Your task to perform on an android device: Open accessibility settings Image 0: 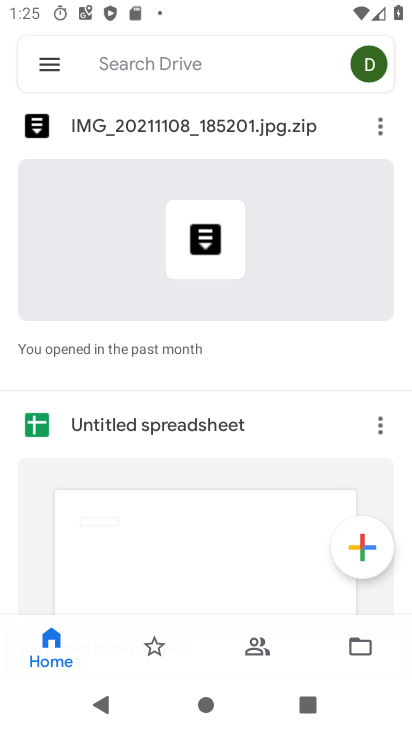
Step 0: press home button
Your task to perform on an android device: Open accessibility settings Image 1: 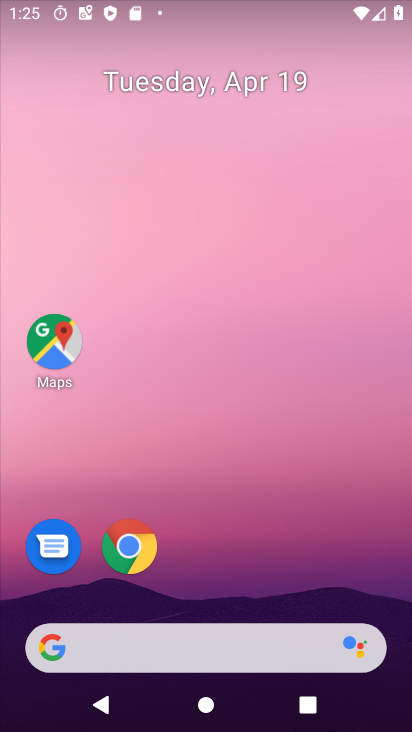
Step 1: drag from (251, 593) to (305, 139)
Your task to perform on an android device: Open accessibility settings Image 2: 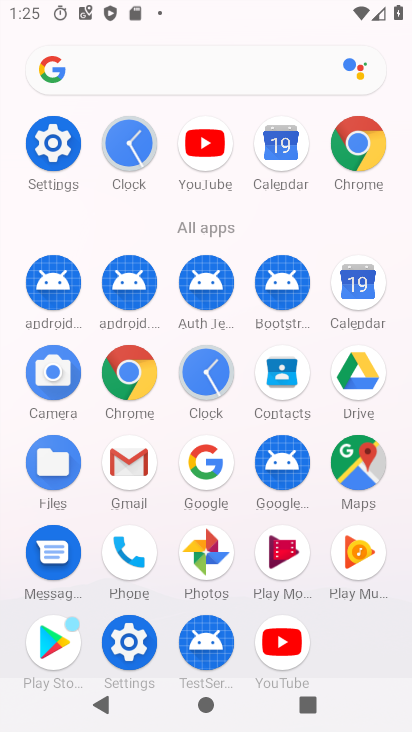
Step 2: click (44, 146)
Your task to perform on an android device: Open accessibility settings Image 3: 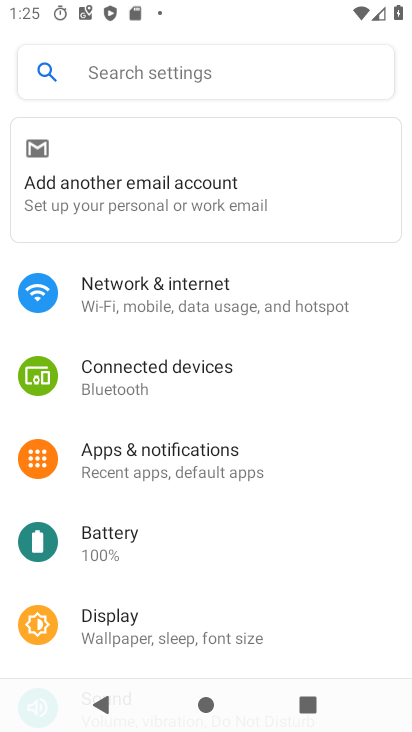
Step 3: drag from (155, 645) to (264, 88)
Your task to perform on an android device: Open accessibility settings Image 4: 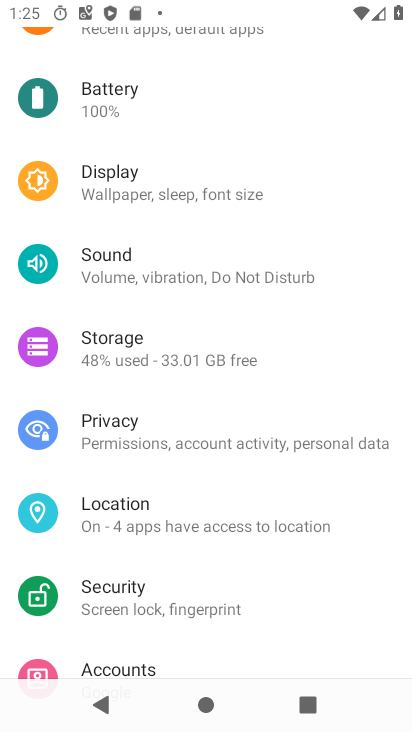
Step 4: drag from (120, 602) to (252, 102)
Your task to perform on an android device: Open accessibility settings Image 5: 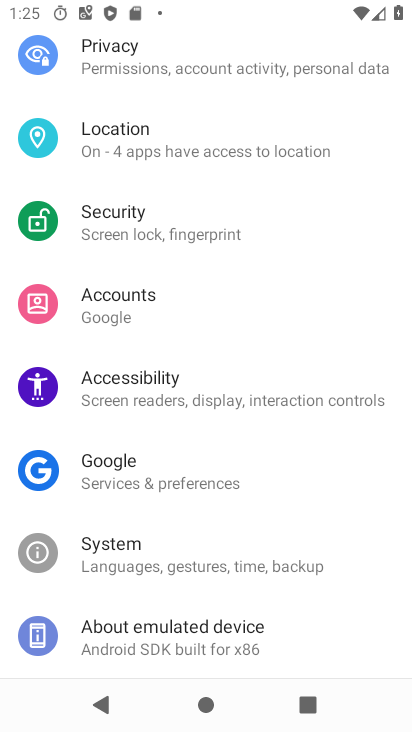
Step 5: click (191, 397)
Your task to perform on an android device: Open accessibility settings Image 6: 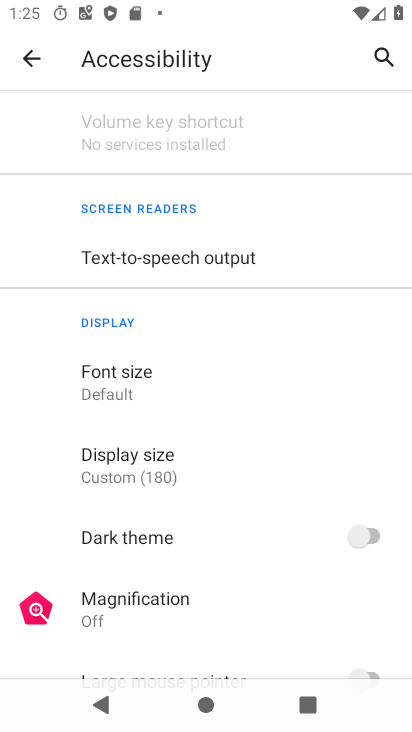
Step 6: task complete